Your task to perform on an android device: Open wifi settings Image 0: 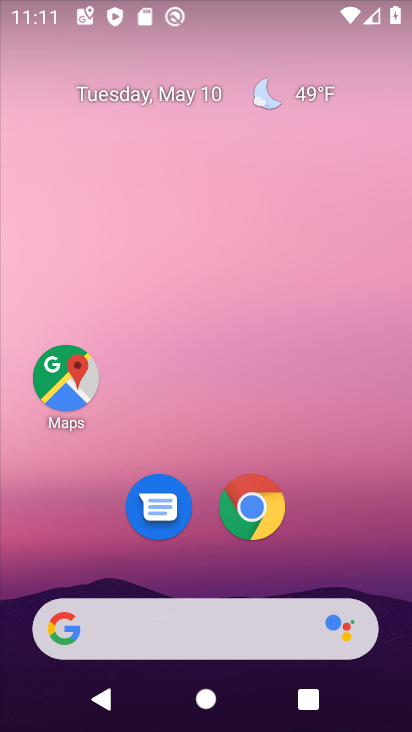
Step 0: drag from (205, 572) to (195, 124)
Your task to perform on an android device: Open wifi settings Image 1: 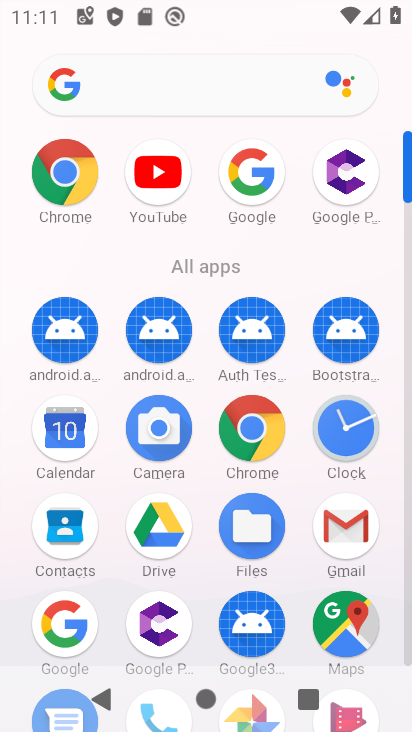
Step 1: drag from (187, 569) to (201, 206)
Your task to perform on an android device: Open wifi settings Image 2: 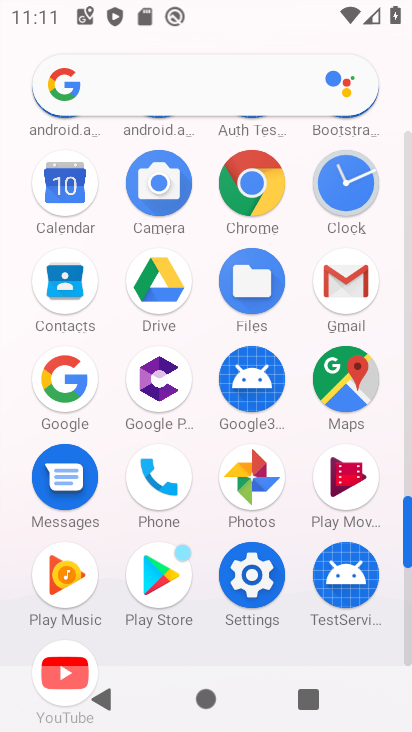
Step 2: click (252, 588)
Your task to perform on an android device: Open wifi settings Image 3: 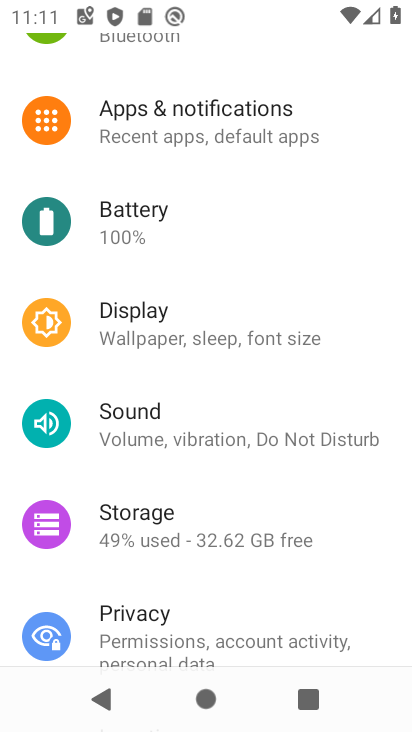
Step 3: drag from (205, 128) to (255, 718)
Your task to perform on an android device: Open wifi settings Image 4: 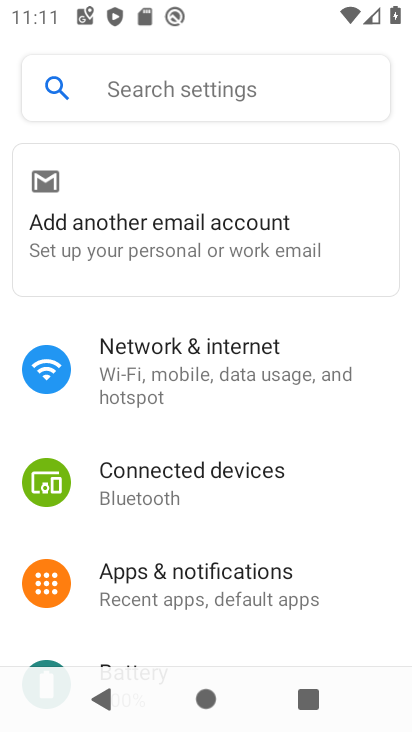
Step 4: click (215, 357)
Your task to perform on an android device: Open wifi settings Image 5: 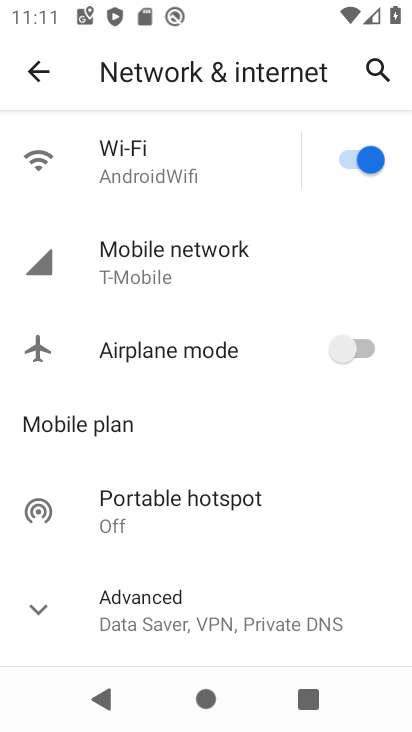
Step 5: click (178, 149)
Your task to perform on an android device: Open wifi settings Image 6: 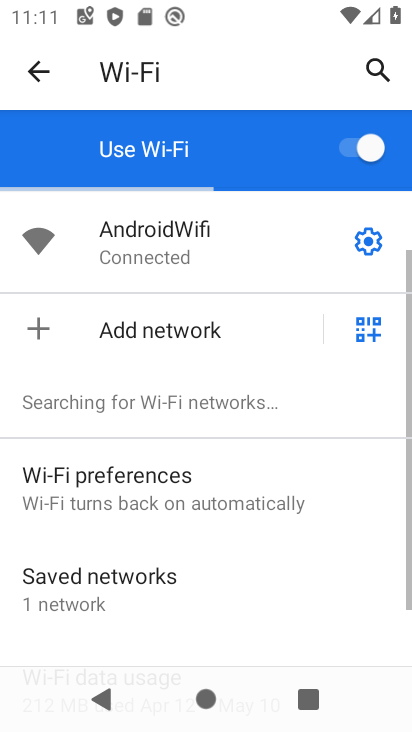
Step 6: click (357, 243)
Your task to perform on an android device: Open wifi settings Image 7: 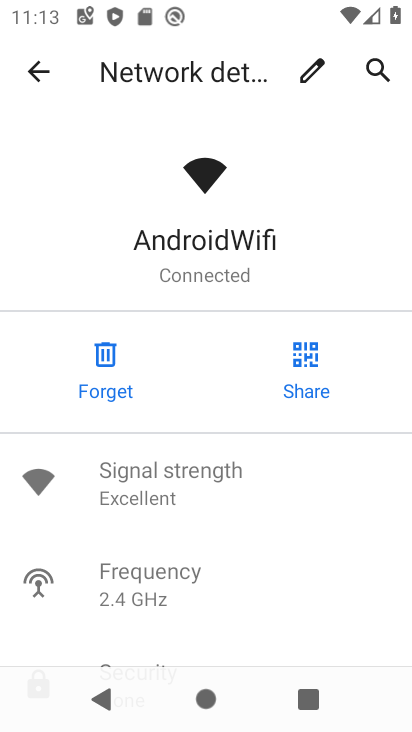
Step 7: task complete